Your task to perform on an android device: Open network settings Image 0: 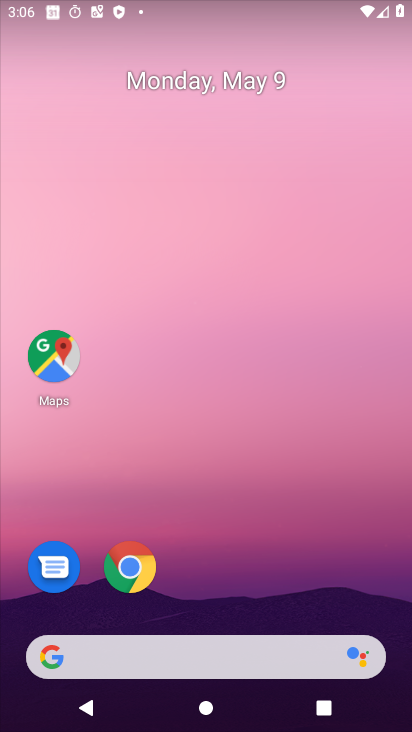
Step 0: drag from (253, 580) to (218, 89)
Your task to perform on an android device: Open network settings Image 1: 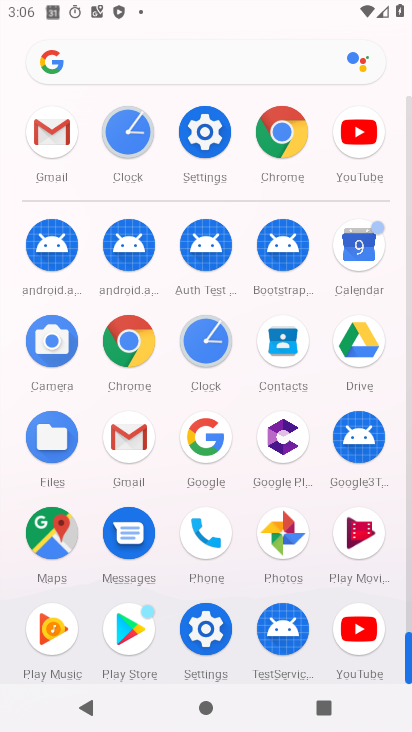
Step 1: click (200, 129)
Your task to perform on an android device: Open network settings Image 2: 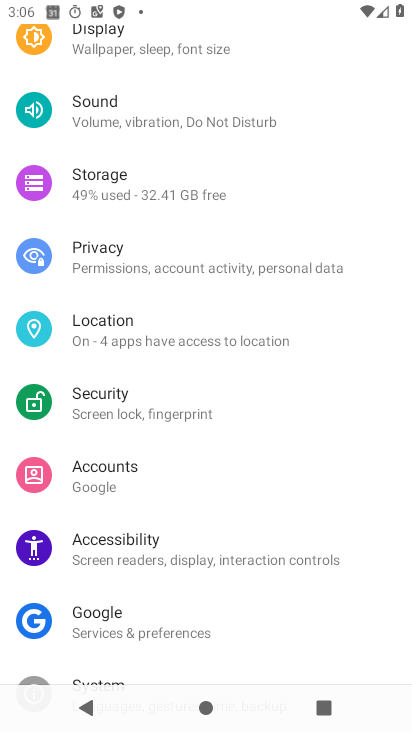
Step 2: drag from (220, 91) to (208, 629)
Your task to perform on an android device: Open network settings Image 3: 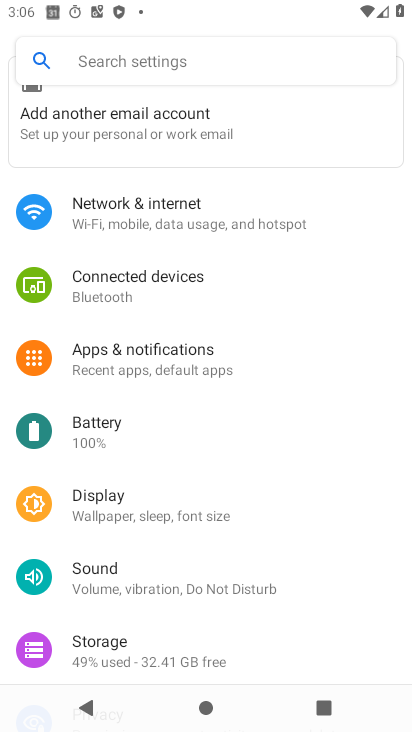
Step 3: click (177, 220)
Your task to perform on an android device: Open network settings Image 4: 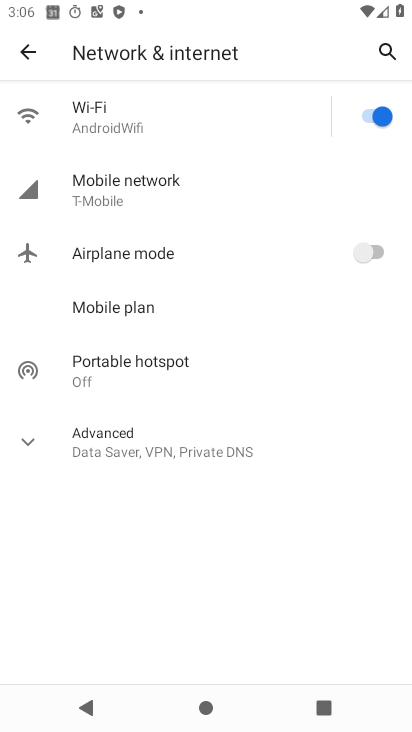
Step 4: task complete